Your task to perform on an android device: Open the map Image 0: 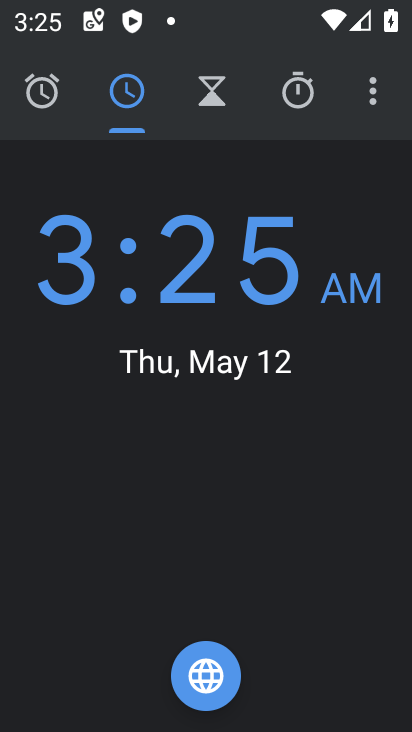
Step 0: press home button
Your task to perform on an android device: Open the map Image 1: 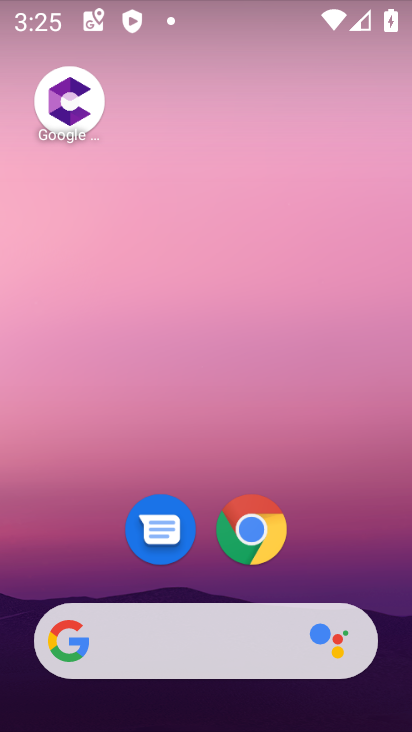
Step 1: drag from (360, 571) to (400, 75)
Your task to perform on an android device: Open the map Image 2: 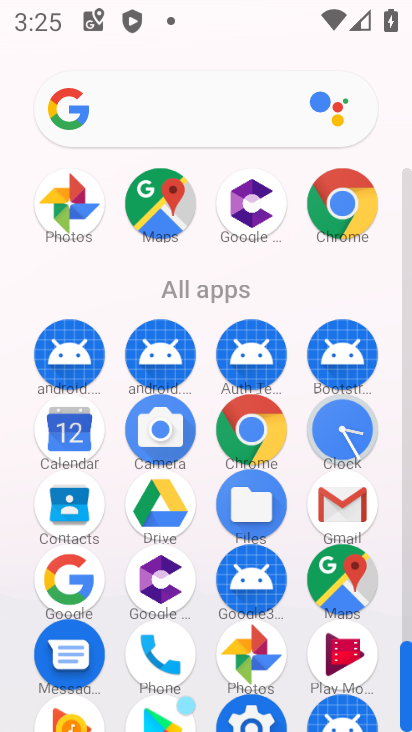
Step 2: click (158, 198)
Your task to perform on an android device: Open the map Image 3: 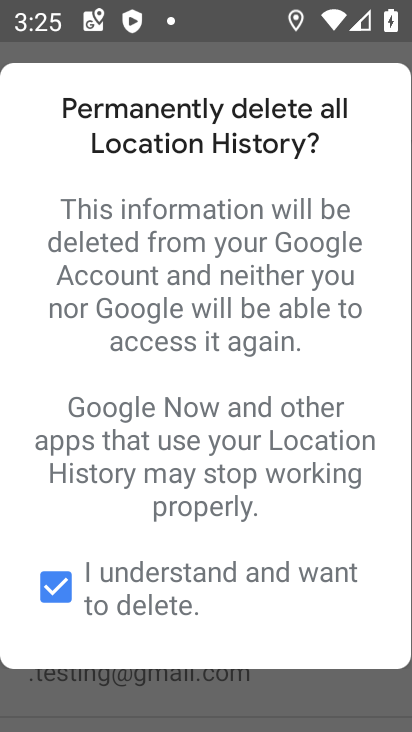
Step 3: task complete